Your task to perform on an android device: refresh tabs in the chrome app Image 0: 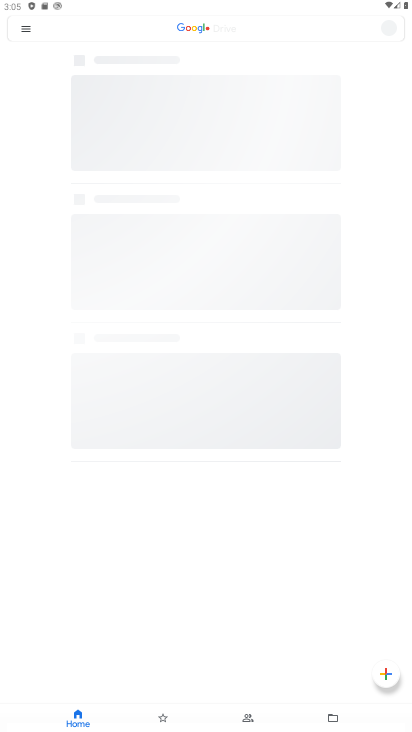
Step 0: drag from (213, 702) to (178, 162)
Your task to perform on an android device: refresh tabs in the chrome app Image 1: 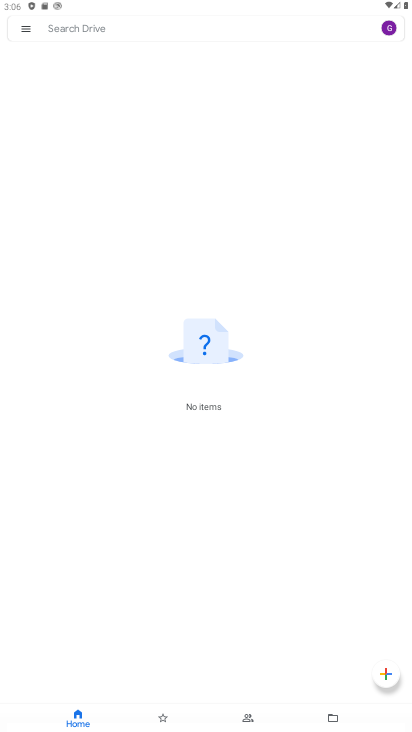
Step 1: press home button
Your task to perform on an android device: refresh tabs in the chrome app Image 2: 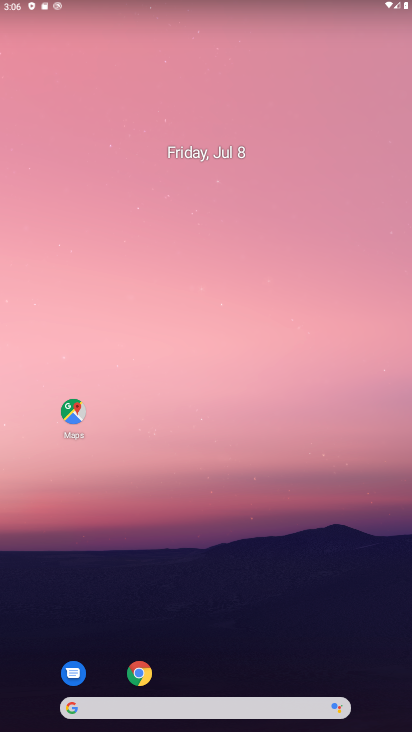
Step 2: click (136, 674)
Your task to perform on an android device: refresh tabs in the chrome app Image 3: 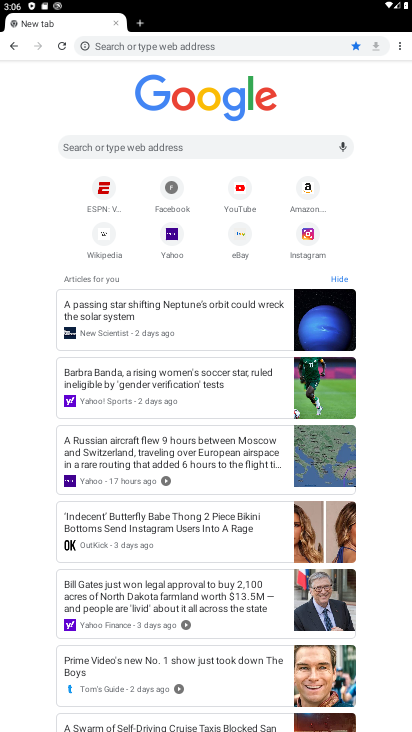
Step 3: drag from (397, 52) to (64, 46)
Your task to perform on an android device: refresh tabs in the chrome app Image 4: 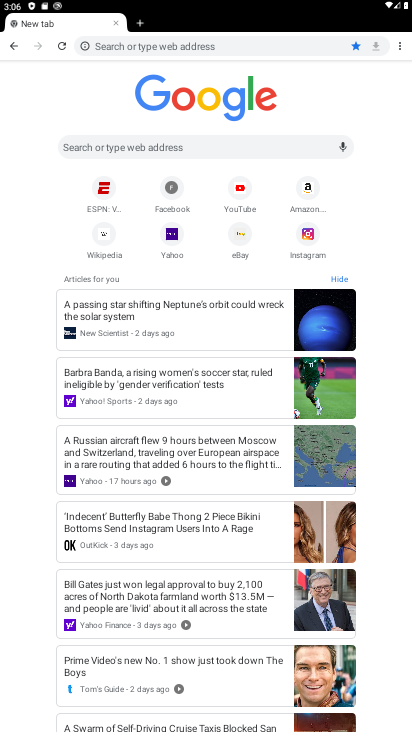
Step 4: click (64, 46)
Your task to perform on an android device: refresh tabs in the chrome app Image 5: 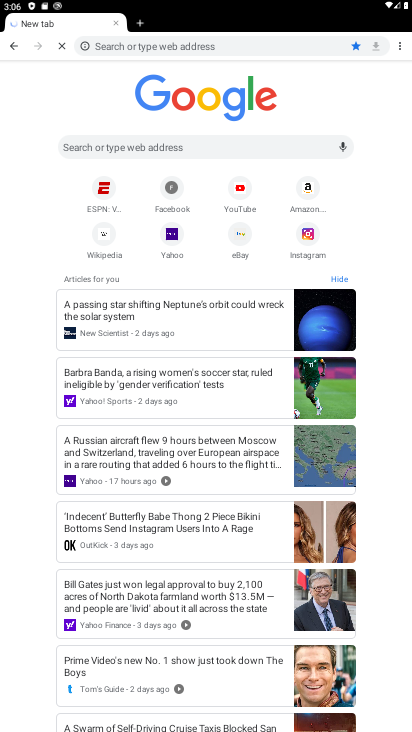
Step 5: click (64, 46)
Your task to perform on an android device: refresh tabs in the chrome app Image 6: 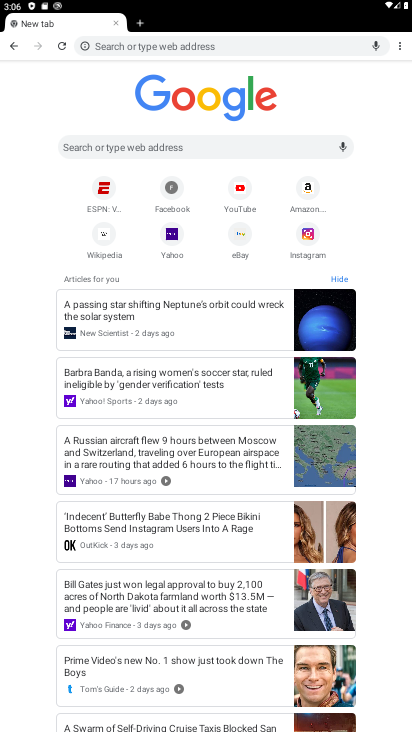
Step 6: task complete